Your task to perform on an android device: turn off sleep mode Image 0: 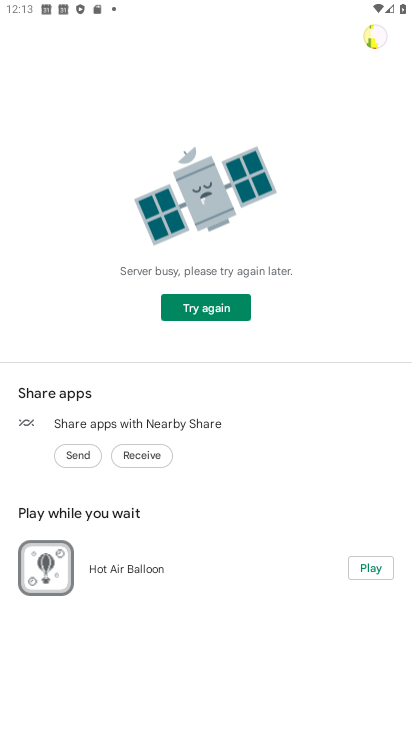
Step 0: press home button
Your task to perform on an android device: turn off sleep mode Image 1: 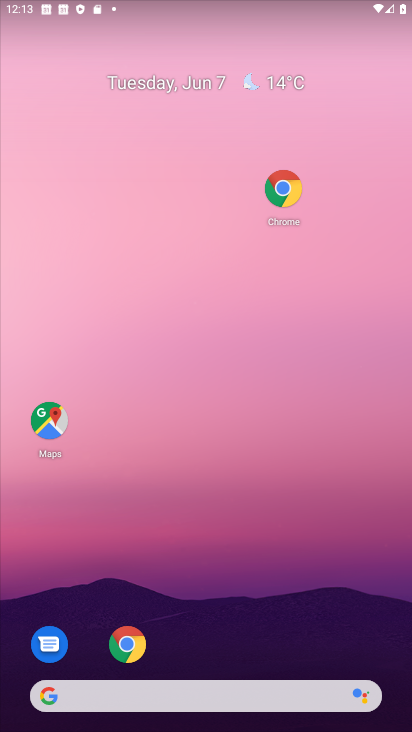
Step 1: drag from (333, 581) to (278, 199)
Your task to perform on an android device: turn off sleep mode Image 2: 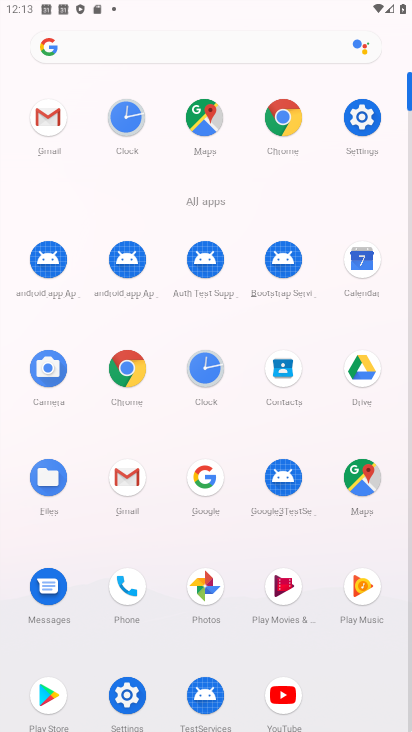
Step 2: click (367, 113)
Your task to perform on an android device: turn off sleep mode Image 3: 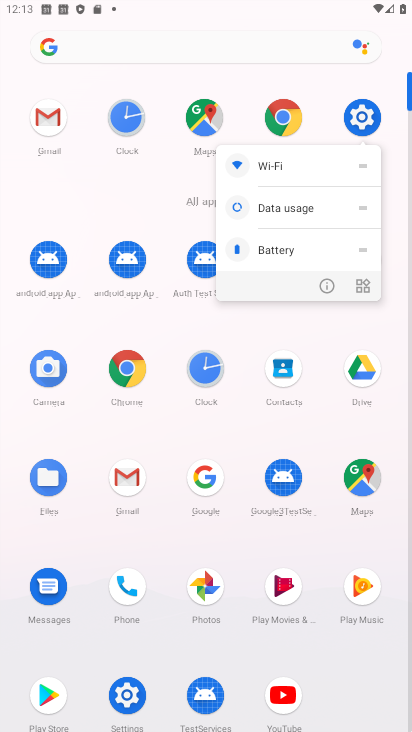
Step 3: click (366, 125)
Your task to perform on an android device: turn off sleep mode Image 4: 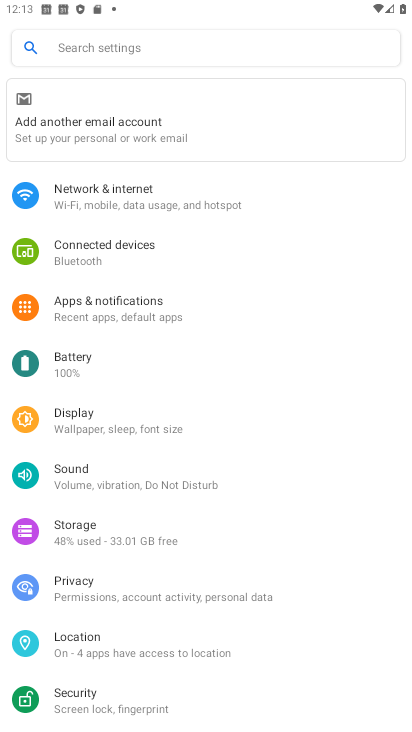
Step 4: click (117, 421)
Your task to perform on an android device: turn off sleep mode Image 5: 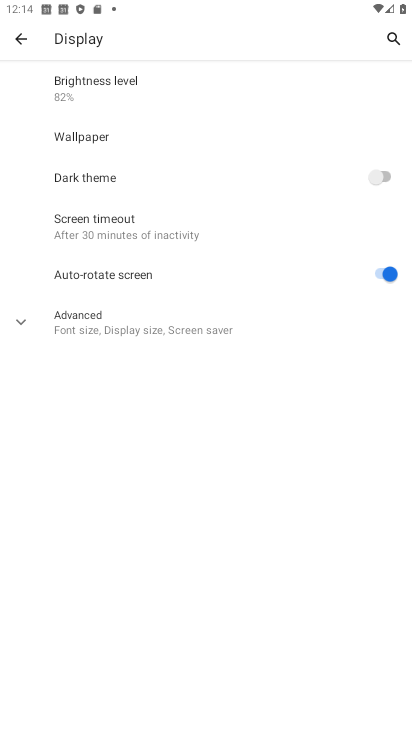
Step 5: click (224, 231)
Your task to perform on an android device: turn off sleep mode Image 6: 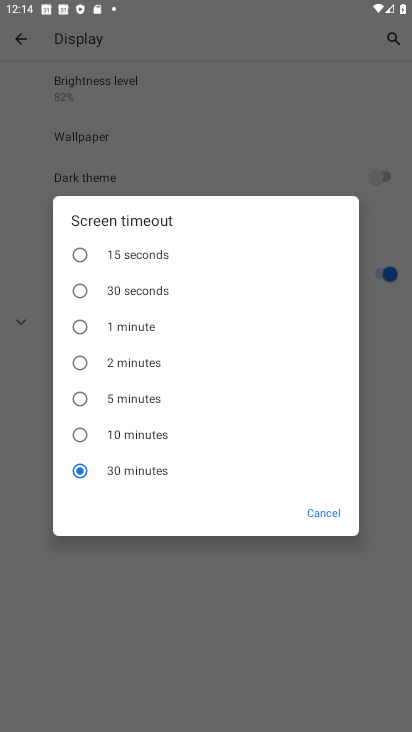
Step 6: task complete